Your task to perform on an android device: Show me popular videos on Youtube Image 0: 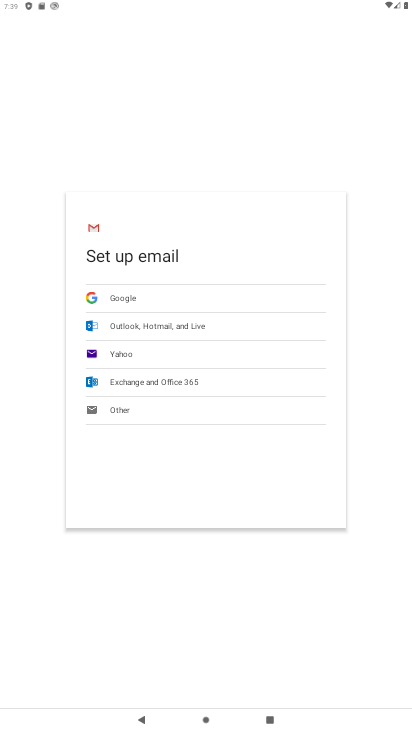
Step 0: press home button
Your task to perform on an android device: Show me popular videos on Youtube Image 1: 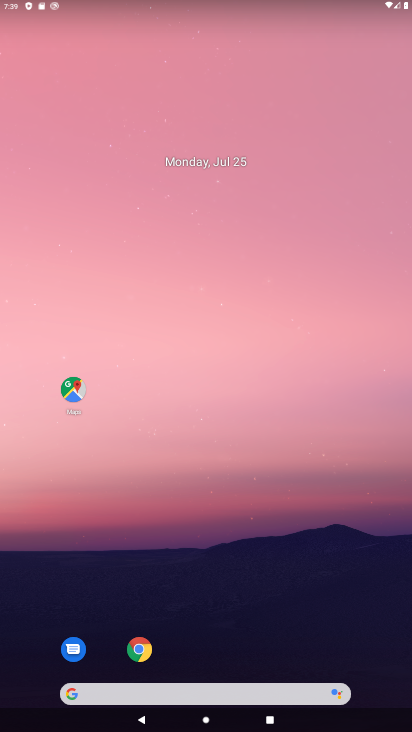
Step 1: drag from (367, 641) to (311, 27)
Your task to perform on an android device: Show me popular videos on Youtube Image 2: 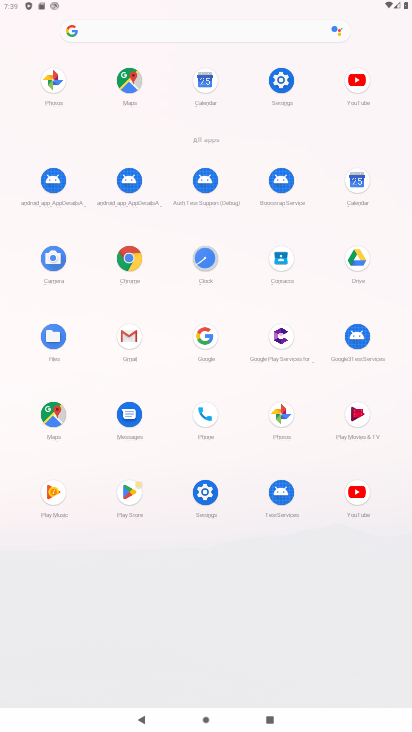
Step 2: click (356, 493)
Your task to perform on an android device: Show me popular videos on Youtube Image 3: 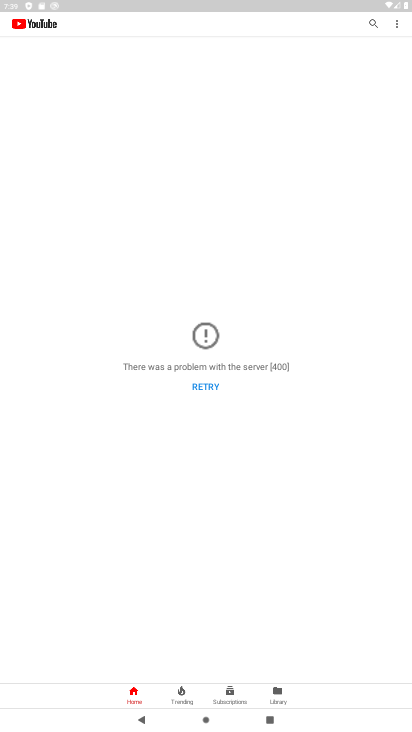
Step 3: click (184, 690)
Your task to perform on an android device: Show me popular videos on Youtube Image 4: 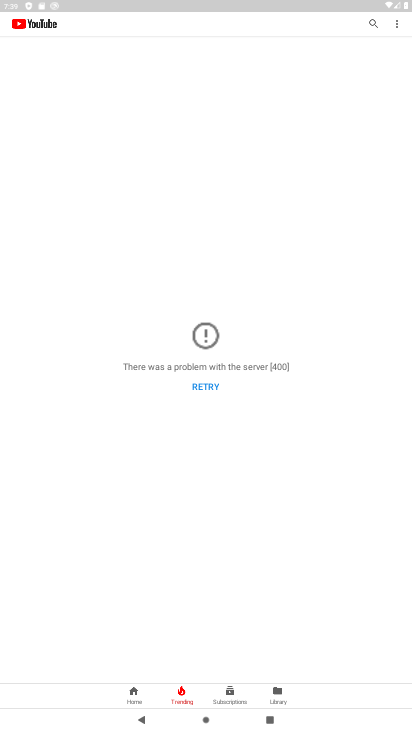
Step 4: click (203, 384)
Your task to perform on an android device: Show me popular videos on Youtube Image 5: 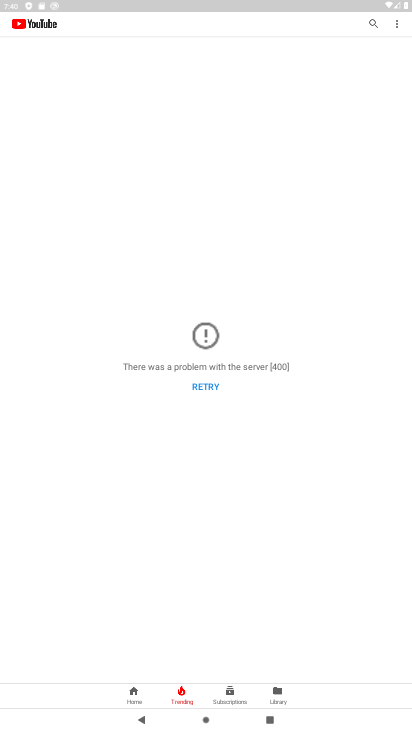
Step 5: click (204, 385)
Your task to perform on an android device: Show me popular videos on Youtube Image 6: 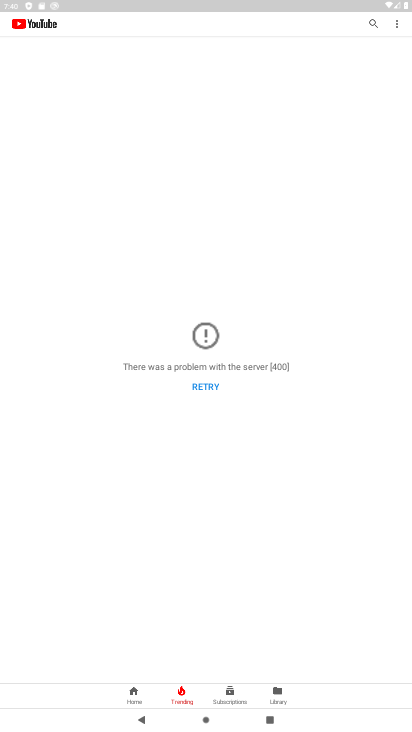
Step 6: task complete